Your task to perform on an android device: empty trash in google photos Image 0: 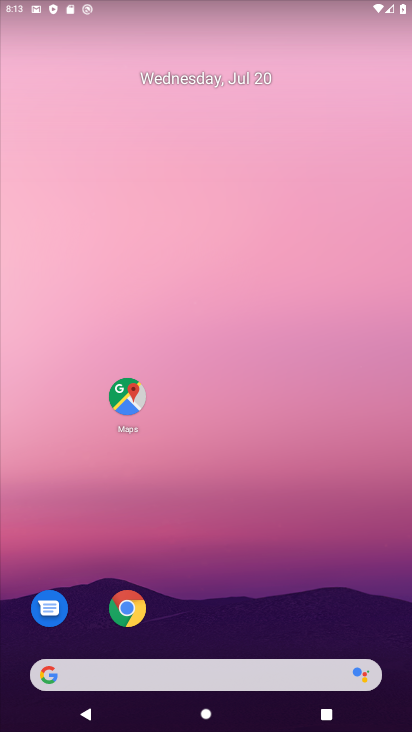
Step 0: drag from (11, 664) to (226, 106)
Your task to perform on an android device: empty trash in google photos Image 1: 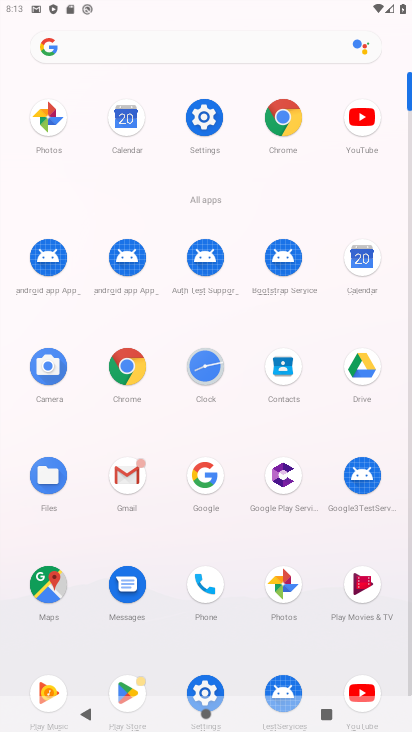
Step 1: click (283, 588)
Your task to perform on an android device: empty trash in google photos Image 2: 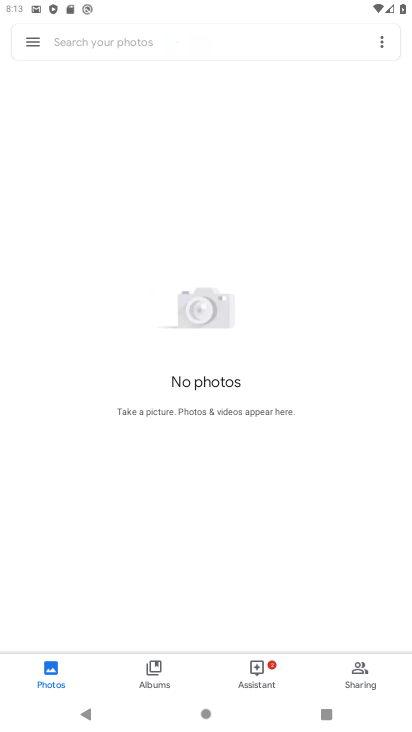
Step 2: click (33, 41)
Your task to perform on an android device: empty trash in google photos Image 3: 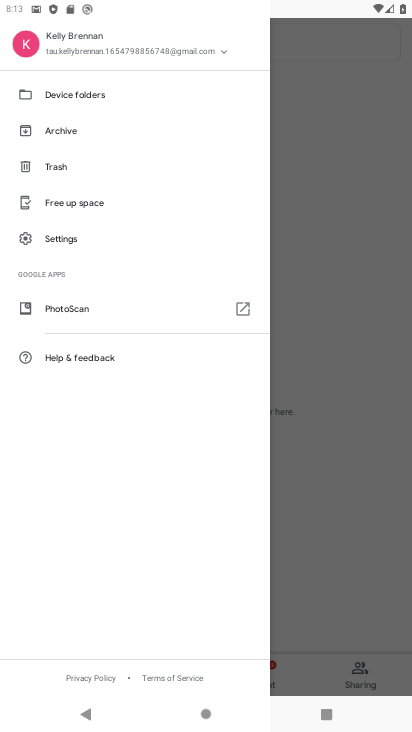
Step 3: click (56, 169)
Your task to perform on an android device: empty trash in google photos Image 4: 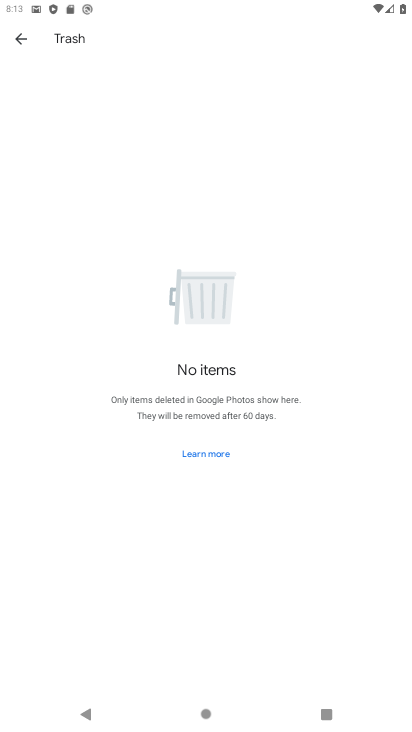
Step 4: task complete